Your task to perform on an android device: turn pop-ups on in chrome Image 0: 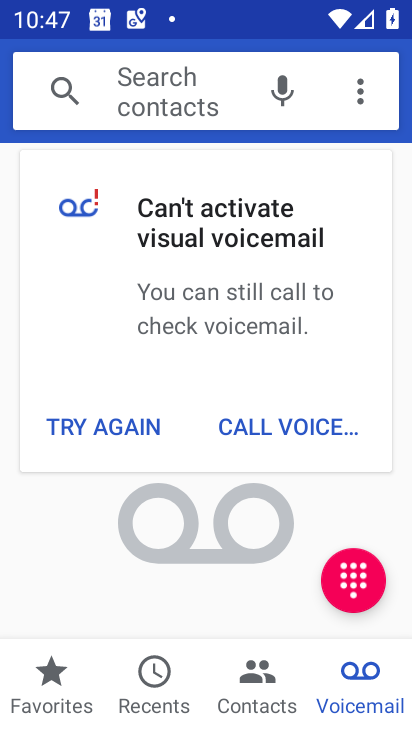
Step 0: press home button
Your task to perform on an android device: turn pop-ups on in chrome Image 1: 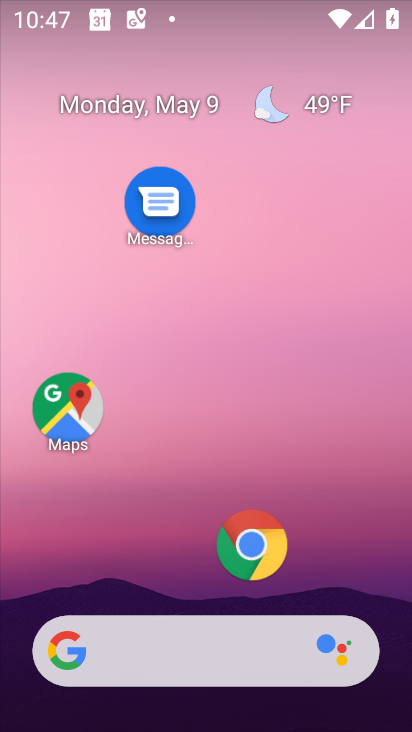
Step 1: click (250, 535)
Your task to perform on an android device: turn pop-ups on in chrome Image 2: 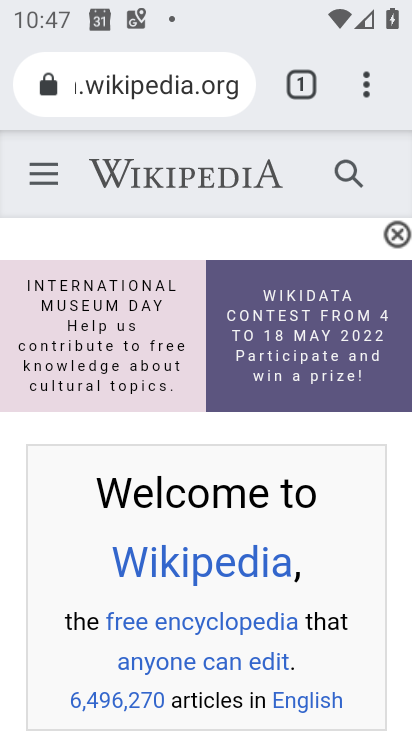
Step 2: click (356, 87)
Your task to perform on an android device: turn pop-ups on in chrome Image 3: 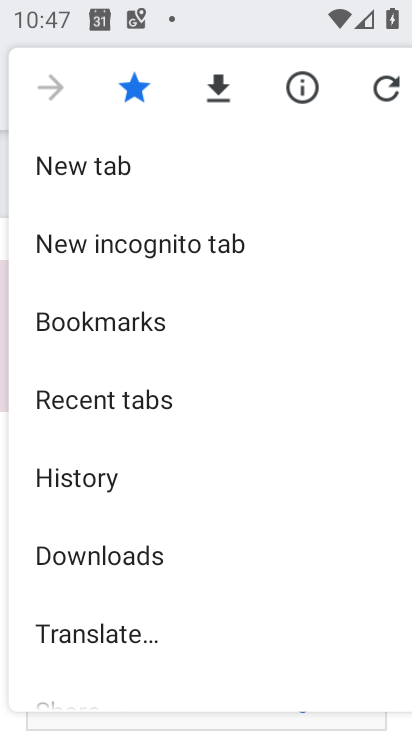
Step 3: drag from (160, 635) to (193, 253)
Your task to perform on an android device: turn pop-ups on in chrome Image 4: 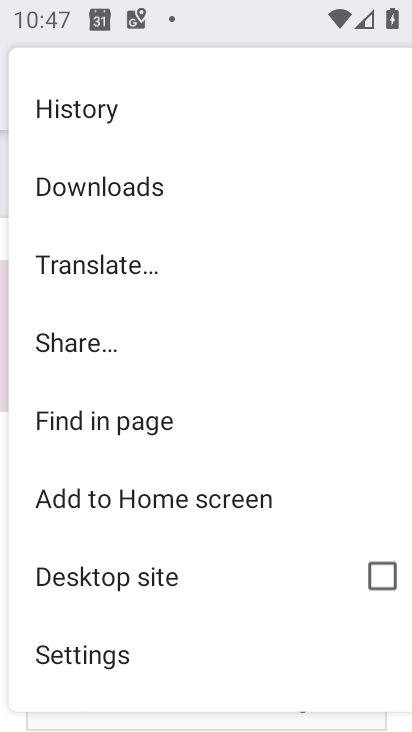
Step 4: drag from (184, 659) to (215, 248)
Your task to perform on an android device: turn pop-ups on in chrome Image 5: 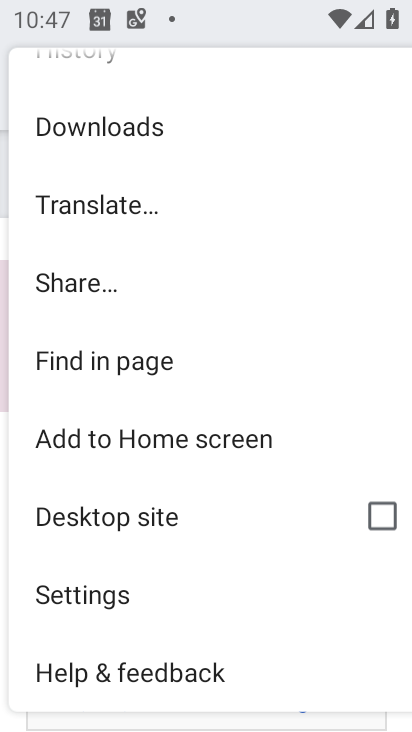
Step 5: click (141, 591)
Your task to perform on an android device: turn pop-ups on in chrome Image 6: 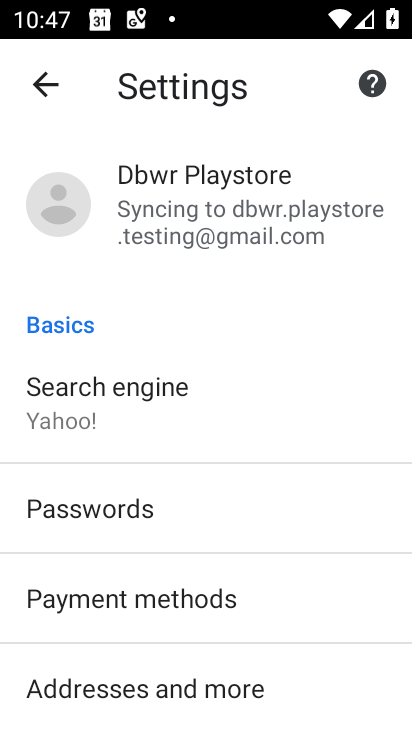
Step 6: drag from (160, 641) to (206, 246)
Your task to perform on an android device: turn pop-ups on in chrome Image 7: 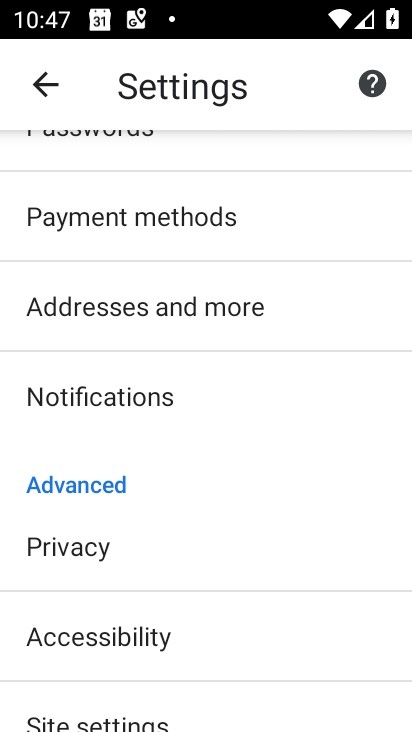
Step 7: drag from (177, 662) to (188, 344)
Your task to perform on an android device: turn pop-ups on in chrome Image 8: 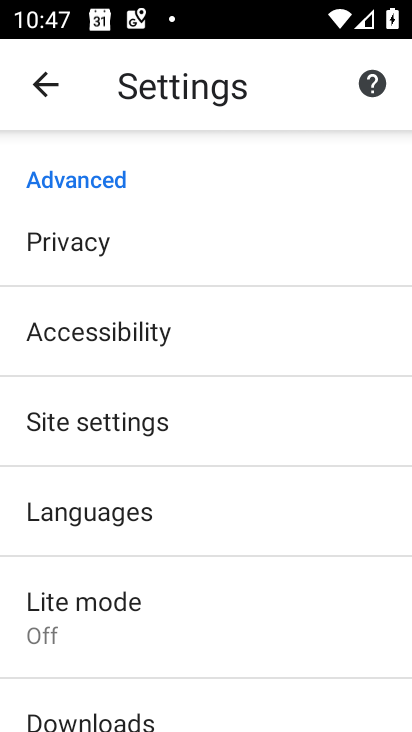
Step 8: drag from (162, 621) to (181, 348)
Your task to perform on an android device: turn pop-ups on in chrome Image 9: 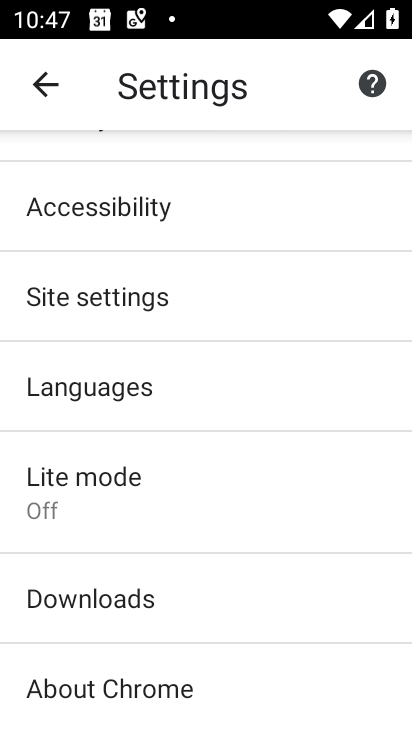
Step 9: click (130, 296)
Your task to perform on an android device: turn pop-ups on in chrome Image 10: 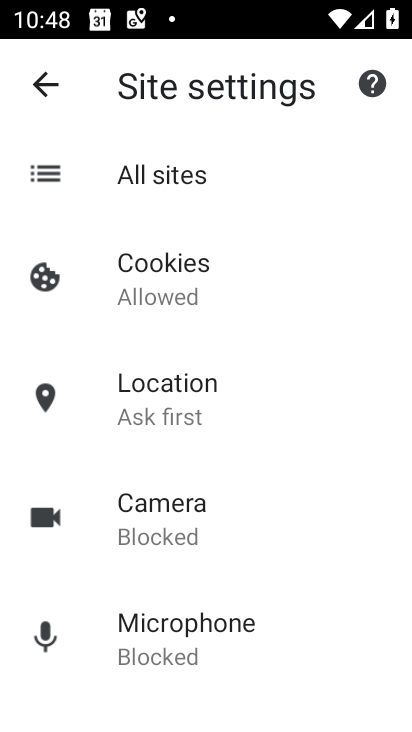
Step 10: drag from (215, 697) to (250, 316)
Your task to perform on an android device: turn pop-ups on in chrome Image 11: 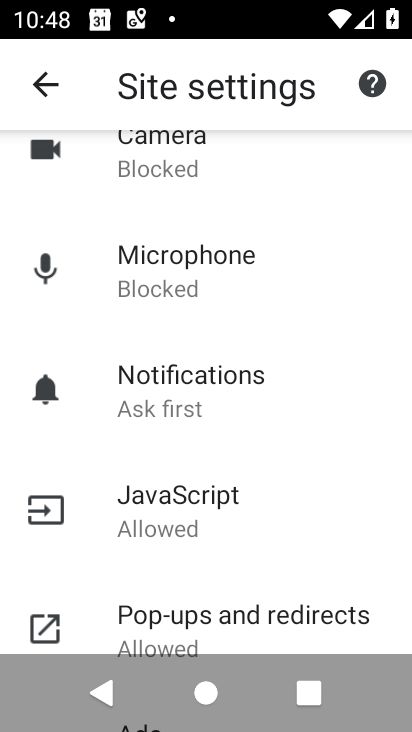
Step 11: drag from (202, 597) to (246, 359)
Your task to perform on an android device: turn pop-ups on in chrome Image 12: 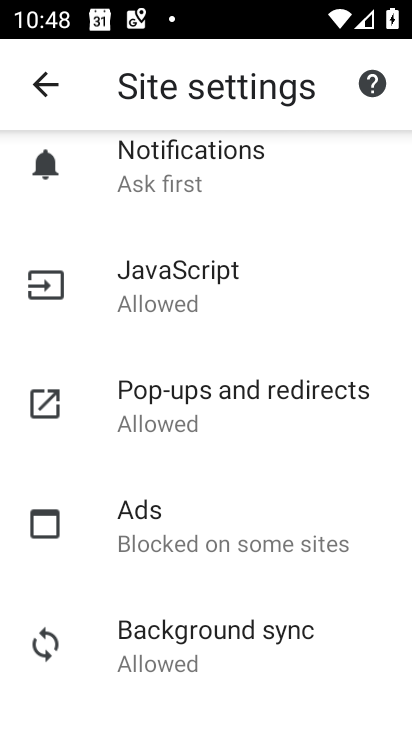
Step 12: click (234, 411)
Your task to perform on an android device: turn pop-ups on in chrome Image 13: 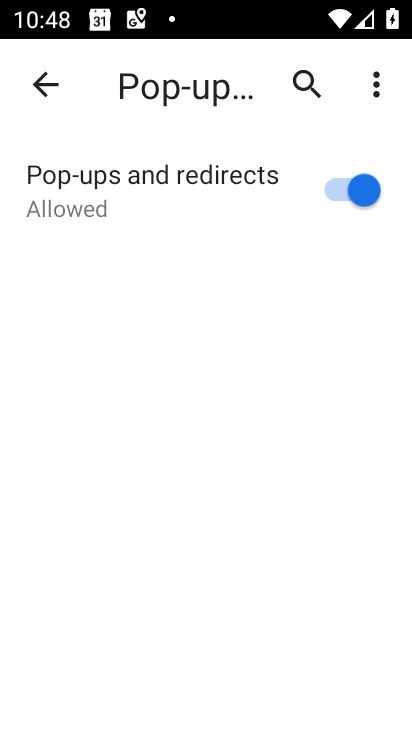
Step 13: task complete